Your task to perform on an android device: Go to accessibility settings Image 0: 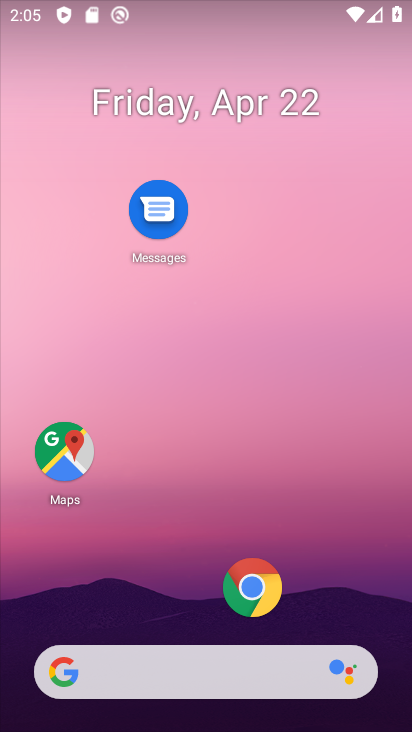
Step 0: drag from (173, 467) to (226, 207)
Your task to perform on an android device: Go to accessibility settings Image 1: 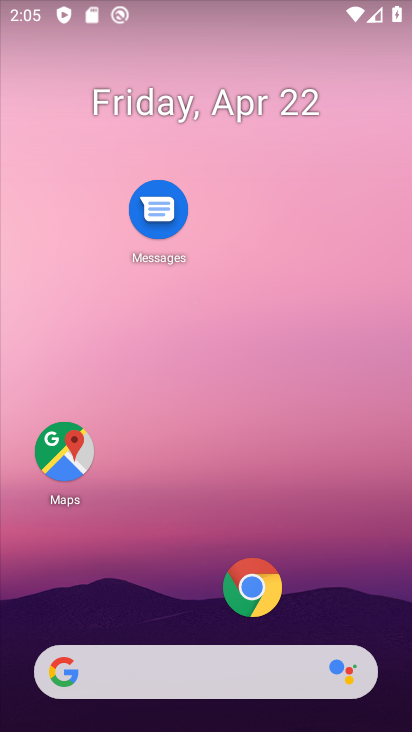
Step 1: drag from (190, 621) to (239, 167)
Your task to perform on an android device: Go to accessibility settings Image 2: 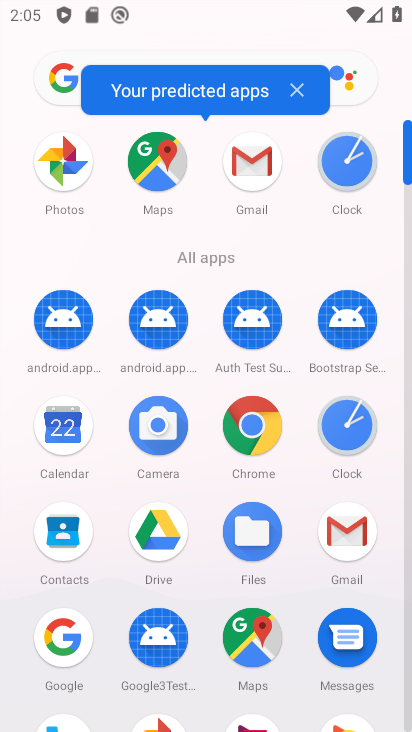
Step 2: drag from (207, 671) to (217, 385)
Your task to perform on an android device: Go to accessibility settings Image 3: 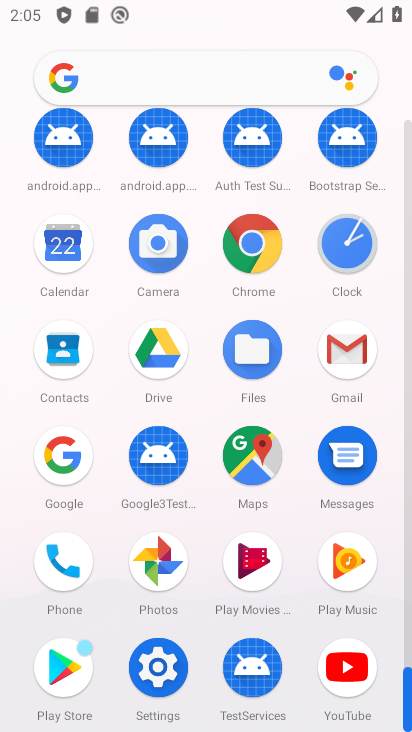
Step 3: click (160, 664)
Your task to perform on an android device: Go to accessibility settings Image 4: 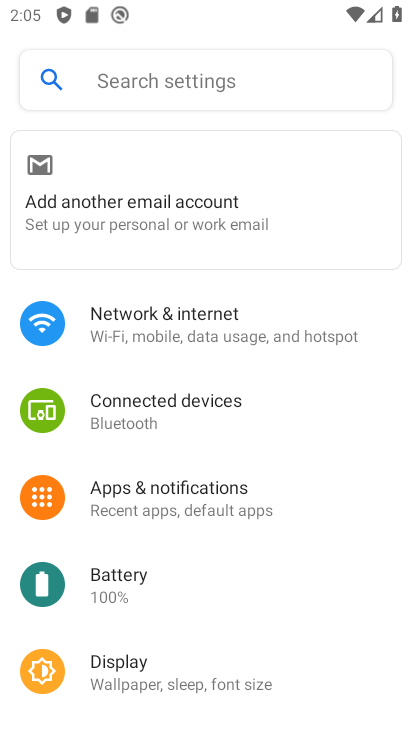
Step 4: drag from (209, 644) to (289, 291)
Your task to perform on an android device: Go to accessibility settings Image 5: 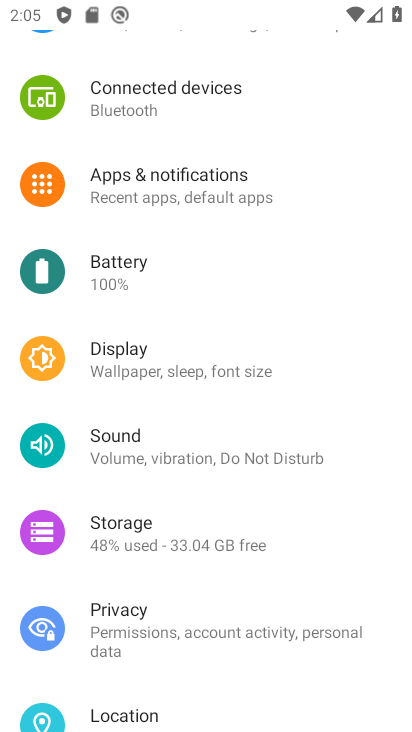
Step 5: drag from (194, 681) to (248, 283)
Your task to perform on an android device: Go to accessibility settings Image 6: 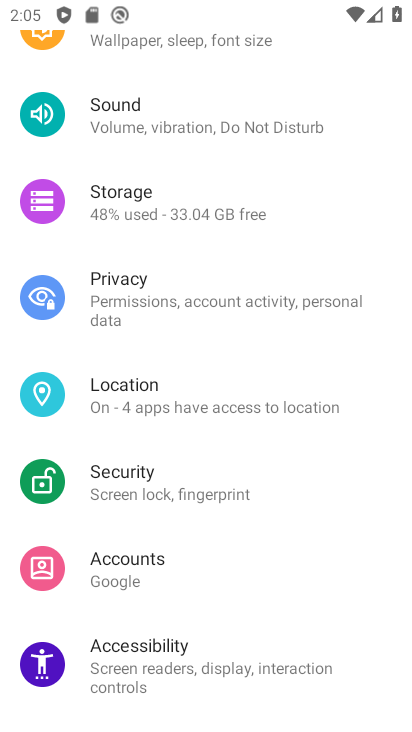
Step 6: click (193, 660)
Your task to perform on an android device: Go to accessibility settings Image 7: 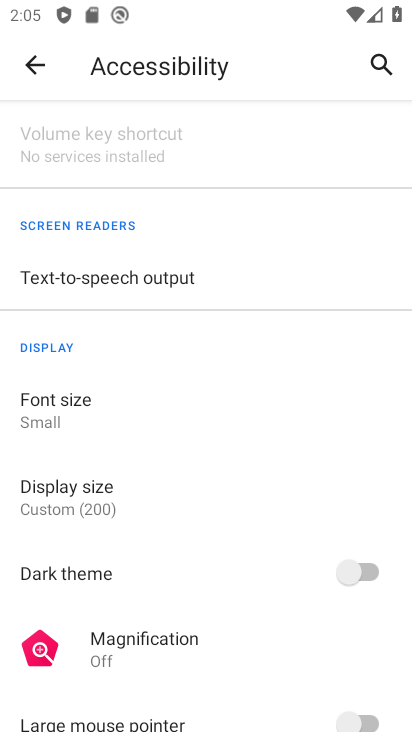
Step 7: task complete